Your task to perform on an android device: Is it going to rain this weekend? Image 0: 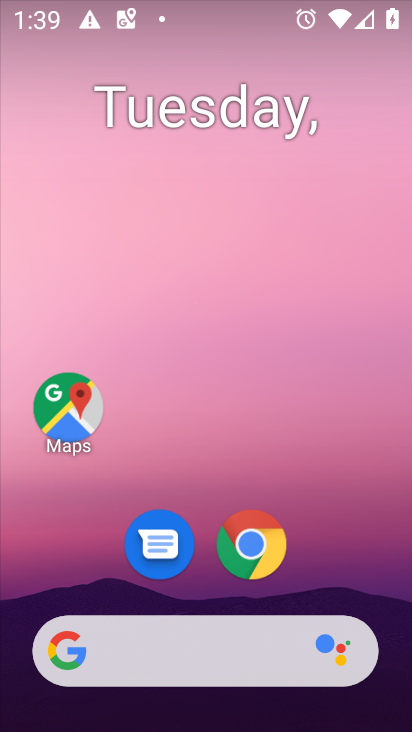
Step 0: drag from (336, 496) to (351, 29)
Your task to perform on an android device: Is it going to rain this weekend? Image 1: 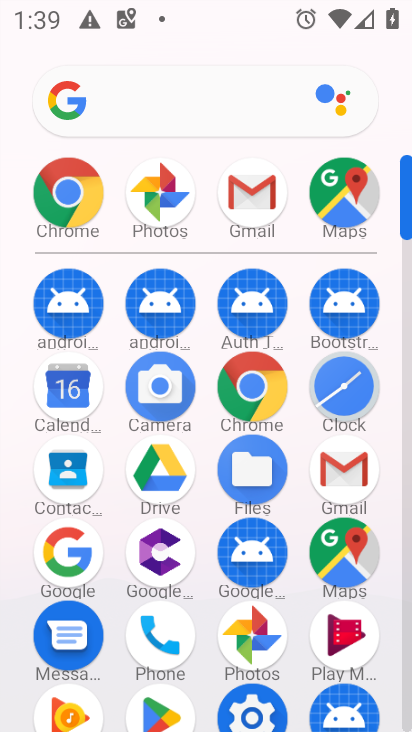
Step 1: click (257, 395)
Your task to perform on an android device: Is it going to rain this weekend? Image 2: 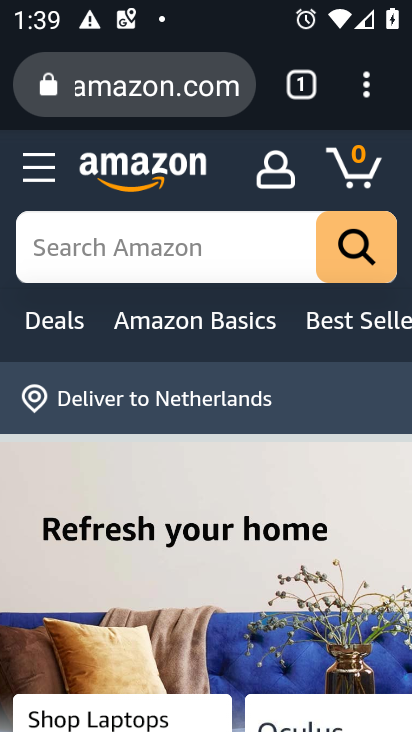
Step 2: click (182, 83)
Your task to perform on an android device: Is it going to rain this weekend? Image 3: 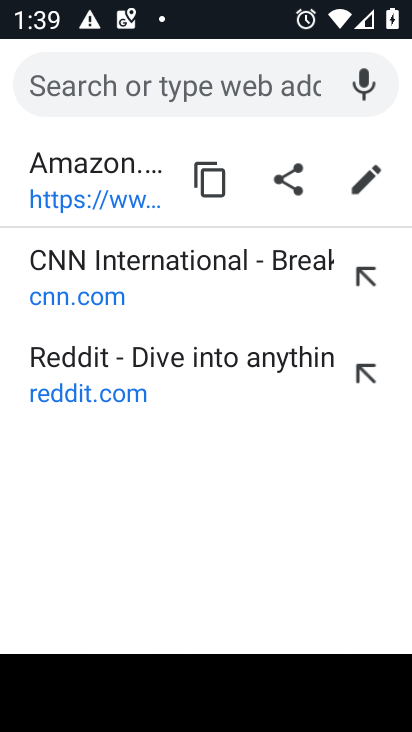
Step 3: type "weather"
Your task to perform on an android device: Is it going to rain this weekend? Image 4: 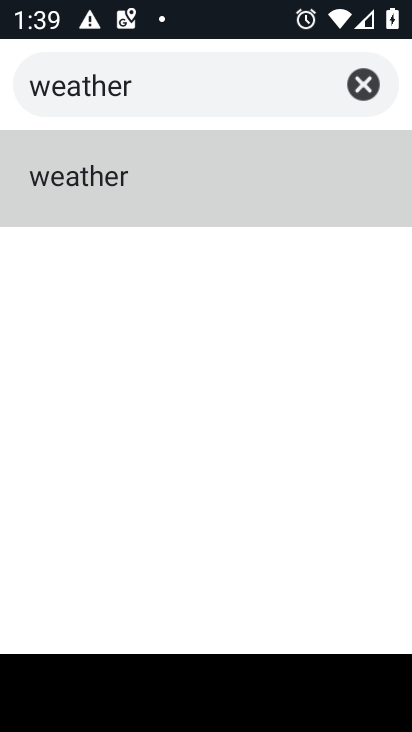
Step 4: click (53, 157)
Your task to perform on an android device: Is it going to rain this weekend? Image 5: 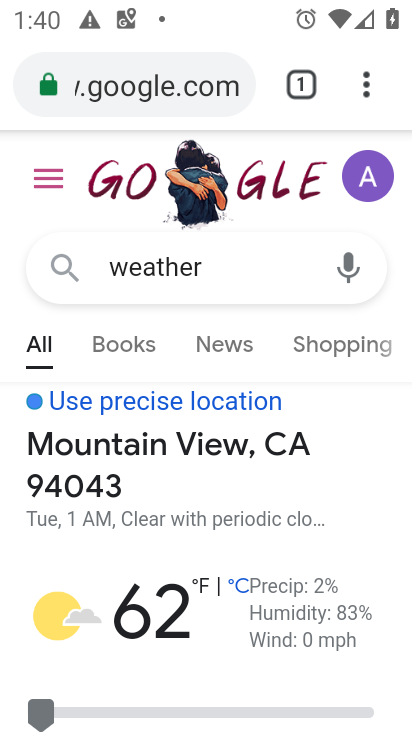
Step 5: drag from (284, 443) to (314, 12)
Your task to perform on an android device: Is it going to rain this weekend? Image 6: 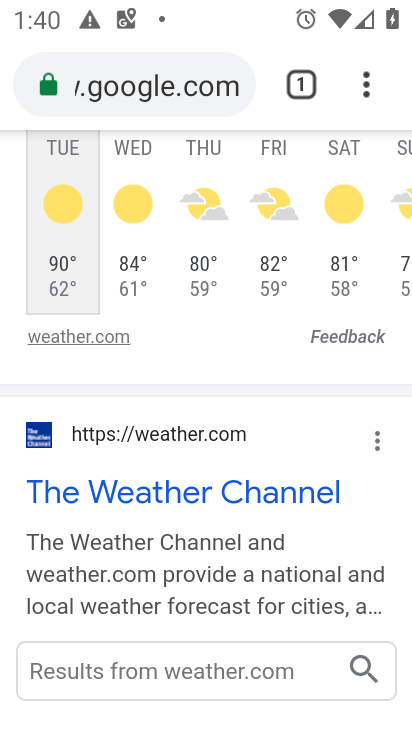
Step 6: click (325, 215)
Your task to perform on an android device: Is it going to rain this weekend? Image 7: 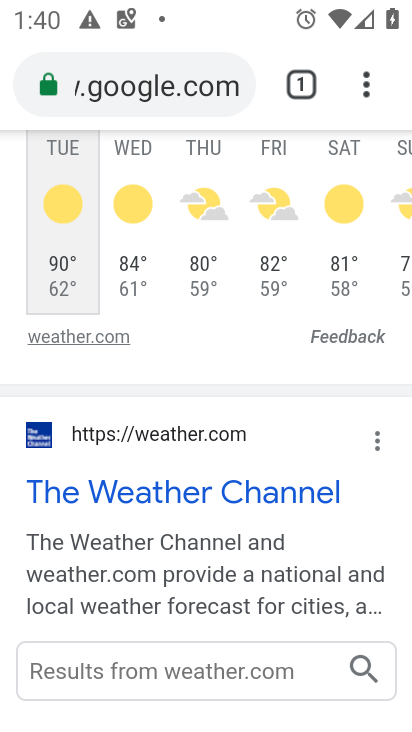
Step 7: click (347, 276)
Your task to perform on an android device: Is it going to rain this weekend? Image 8: 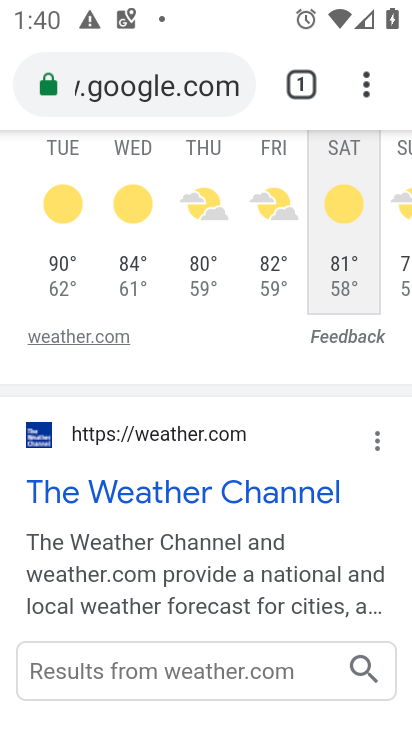
Step 8: task complete